Your task to perform on an android device: Go to internet settings Image 0: 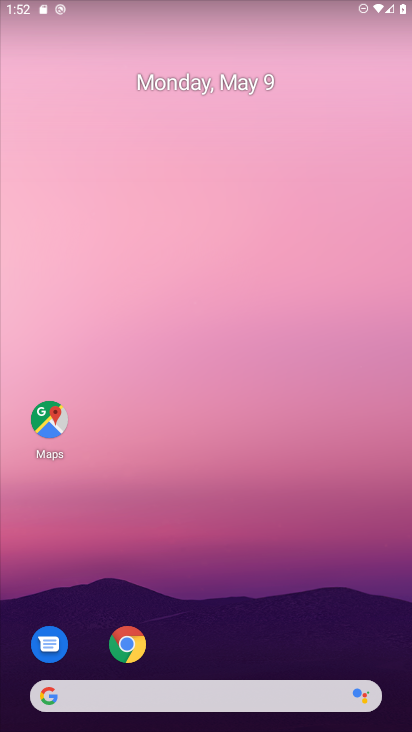
Step 0: drag from (361, 589) to (285, 180)
Your task to perform on an android device: Go to internet settings Image 1: 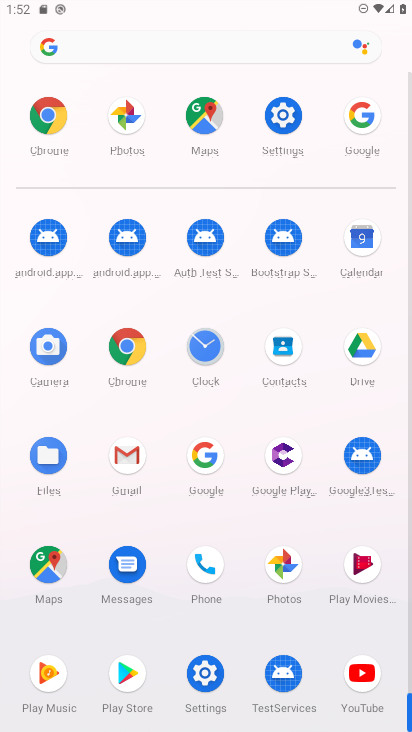
Step 1: click (284, 130)
Your task to perform on an android device: Go to internet settings Image 2: 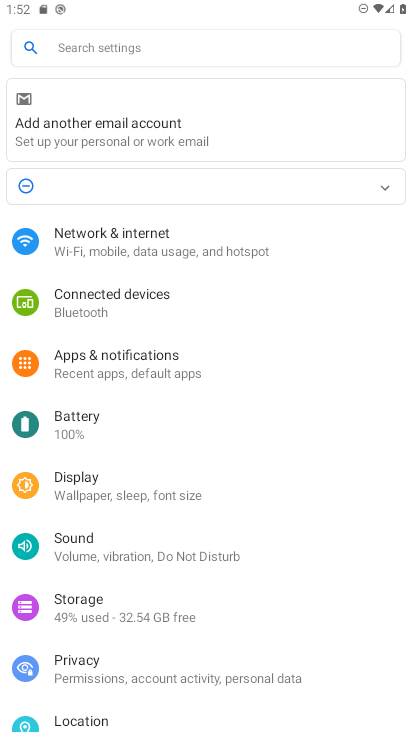
Step 2: click (170, 259)
Your task to perform on an android device: Go to internet settings Image 3: 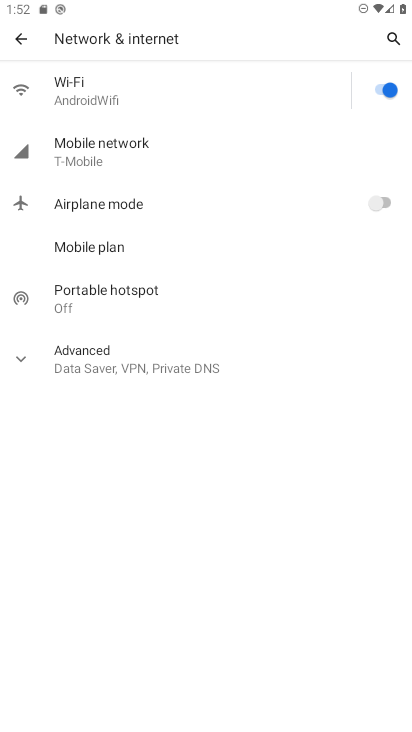
Step 3: click (133, 154)
Your task to perform on an android device: Go to internet settings Image 4: 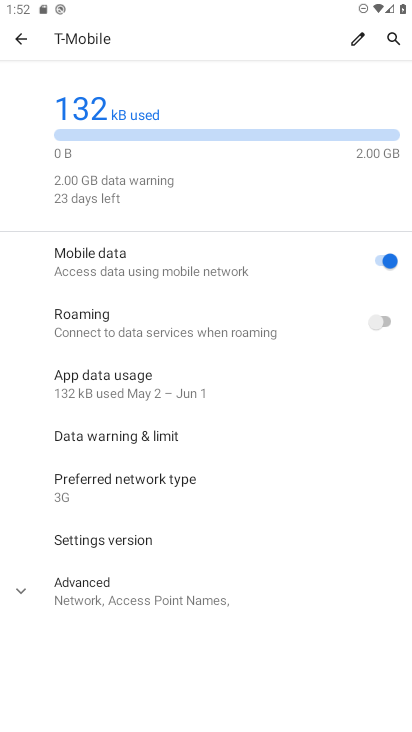
Step 4: task complete